Your task to perform on an android device: Do I have any events tomorrow? Image 0: 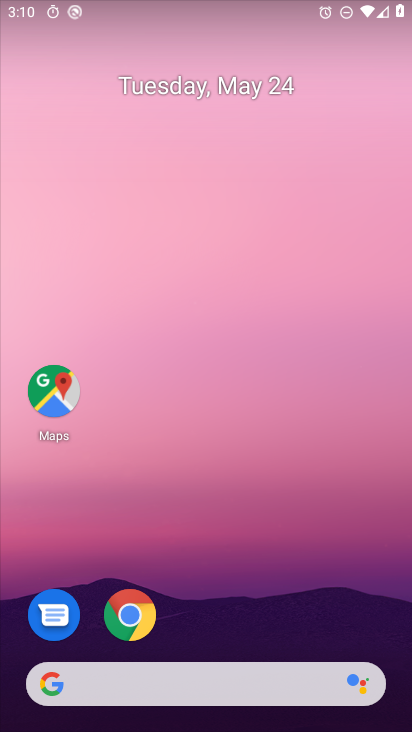
Step 0: drag from (206, 649) to (184, 147)
Your task to perform on an android device: Do I have any events tomorrow? Image 1: 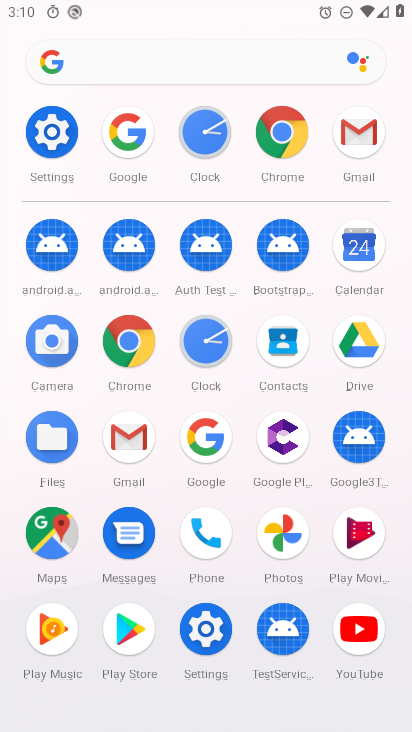
Step 1: click (358, 249)
Your task to perform on an android device: Do I have any events tomorrow? Image 2: 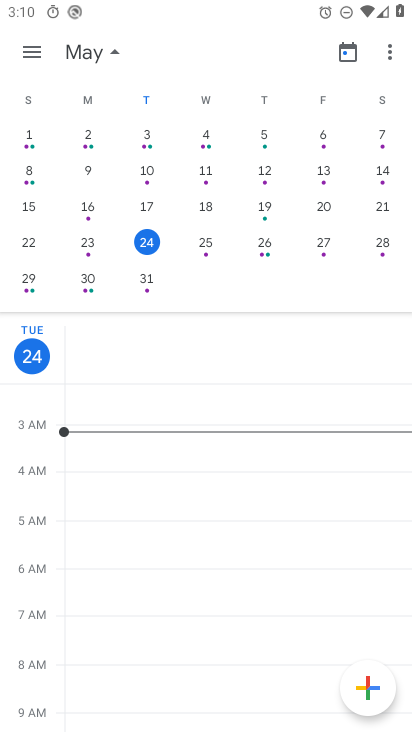
Step 2: click (214, 247)
Your task to perform on an android device: Do I have any events tomorrow? Image 3: 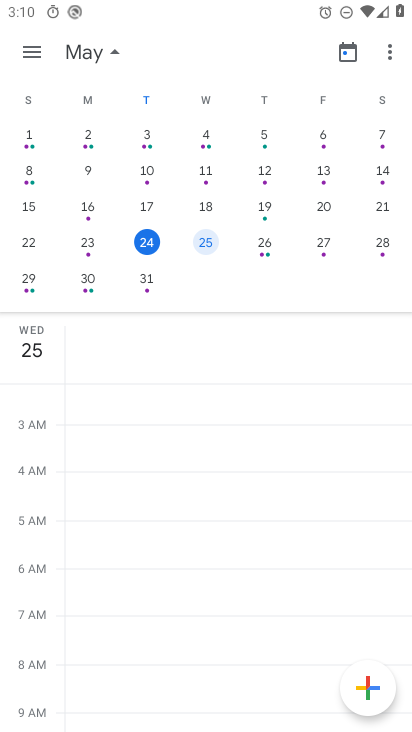
Step 3: drag from (273, 658) to (261, 320)
Your task to perform on an android device: Do I have any events tomorrow? Image 4: 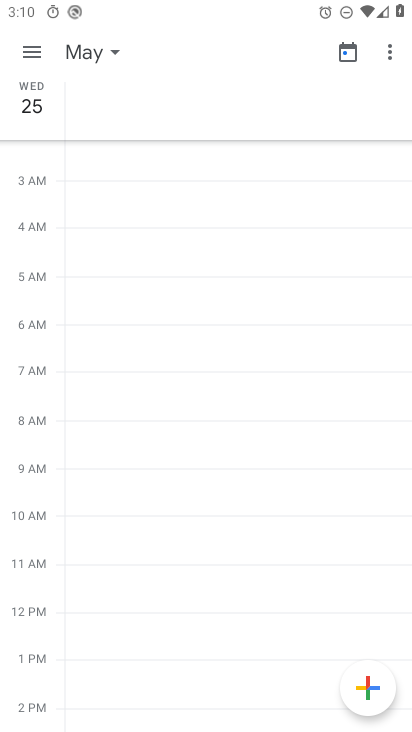
Step 4: drag from (212, 660) to (223, 277)
Your task to perform on an android device: Do I have any events tomorrow? Image 5: 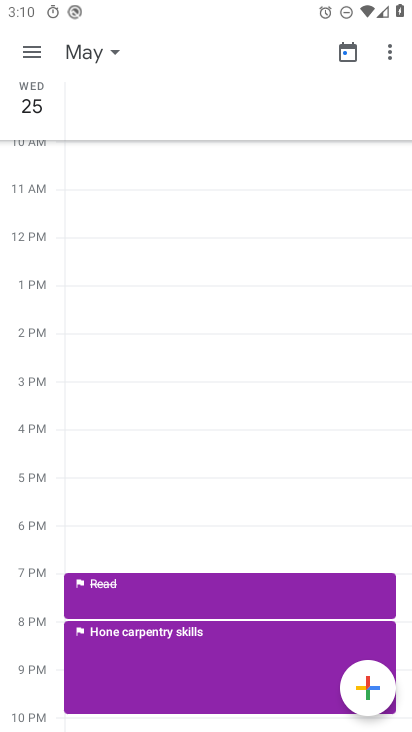
Step 5: drag from (236, 187) to (233, 596)
Your task to perform on an android device: Do I have any events tomorrow? Image 6: 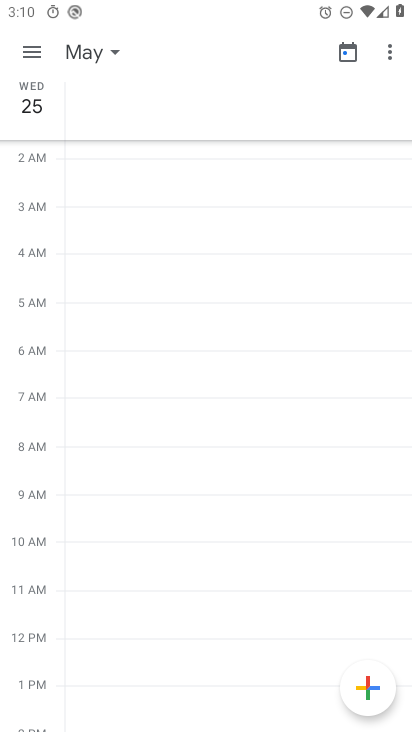
Step 6: drag from (244, 208) to (243, 711)
Your task to perform on an android device: Do I have any events tomorrow? Image 7: 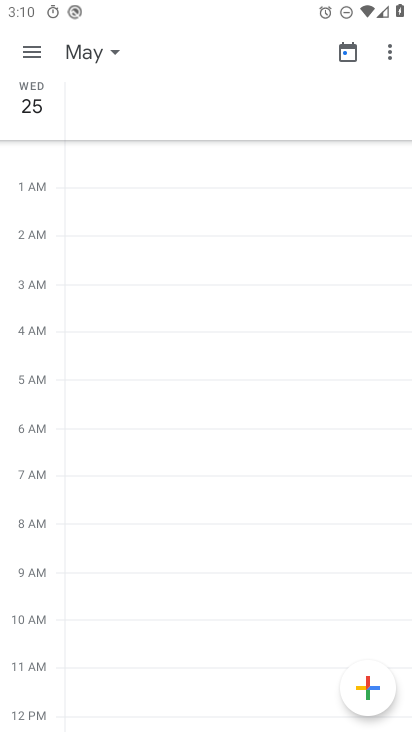
Step 7: drag from (218, 215) to (212, 624)
Your task to perform on an android device: Do I have any events tomorrow? Image 8: 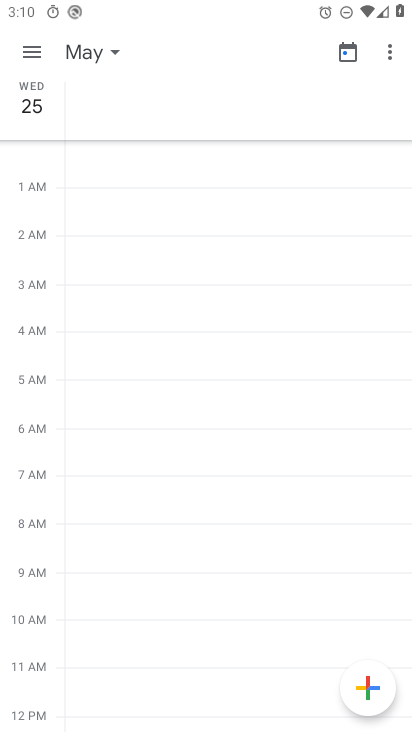
Step 8: drag from (226, 155) to (218, 619)
Your task to perform on an android device: Do I have any events tomorrow? Image 9: 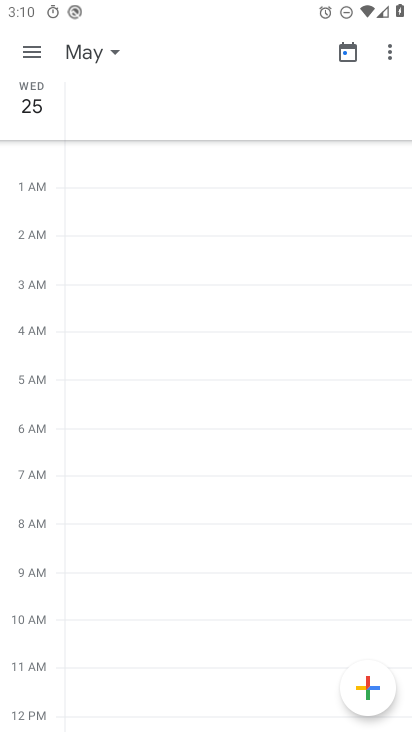
Step 9: click (93, 51)
Your task to perform on an android device: Do I have any events tomorrow? Image 10: 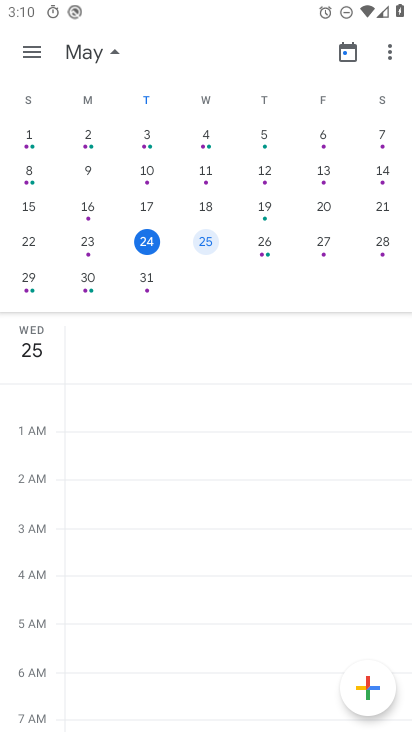
Step 10: task complete